Your task to perform on an android device: Add "usb-a to usb-b" to the cart on costco Image 0: 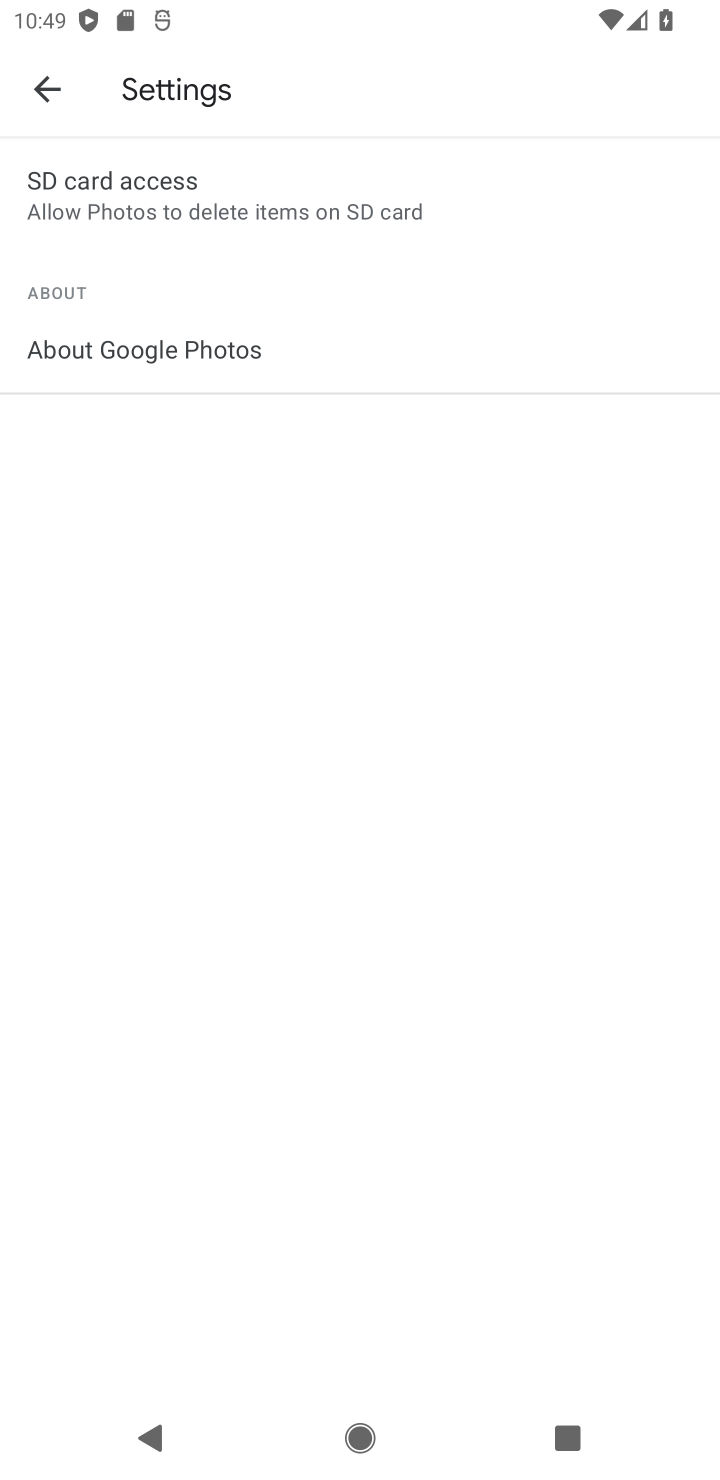
Step 0: press home button
Your task to perform on an android device: Add "usb-a to usb-b" to the cart on costco Image 1: 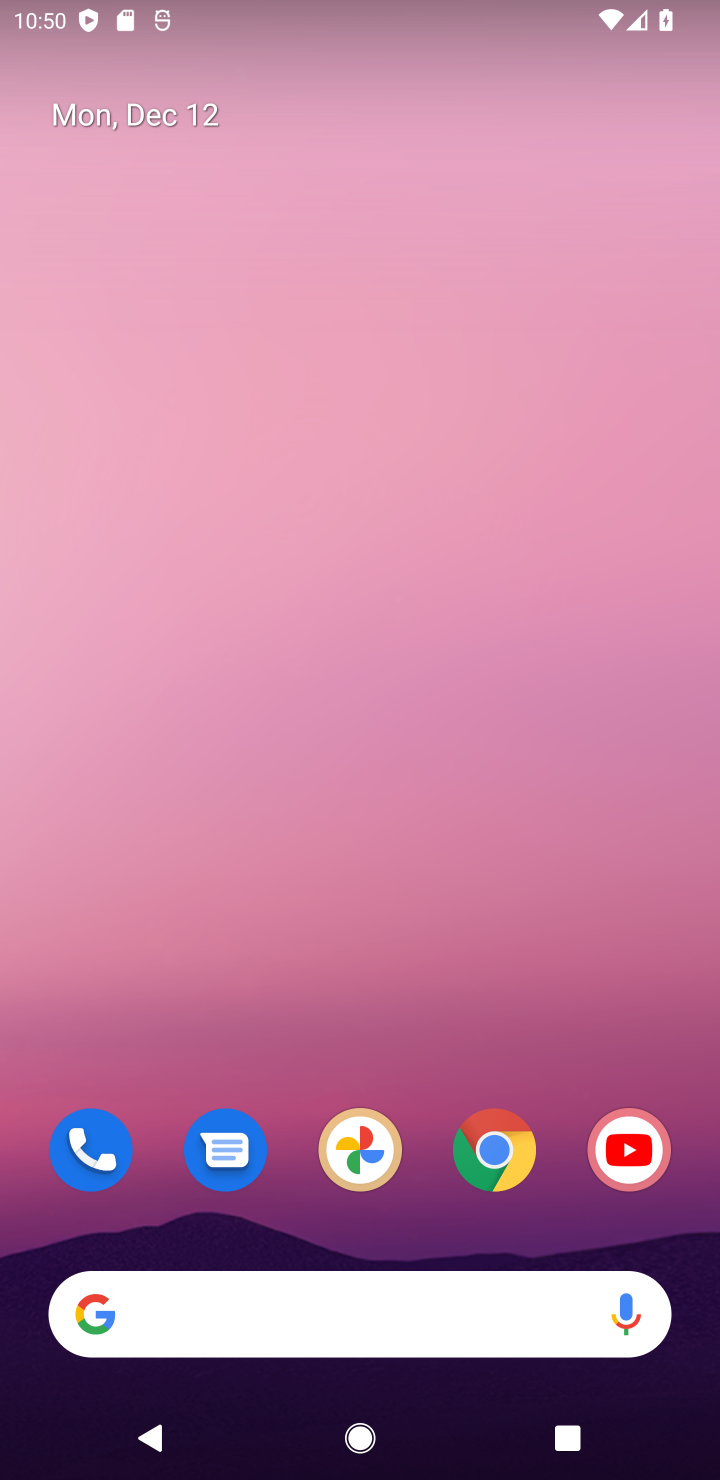
Step 1: click (492, 1160)
Your task to perform on an android device: Add "usb-a to usb-b" to the cart on costco Image 2: 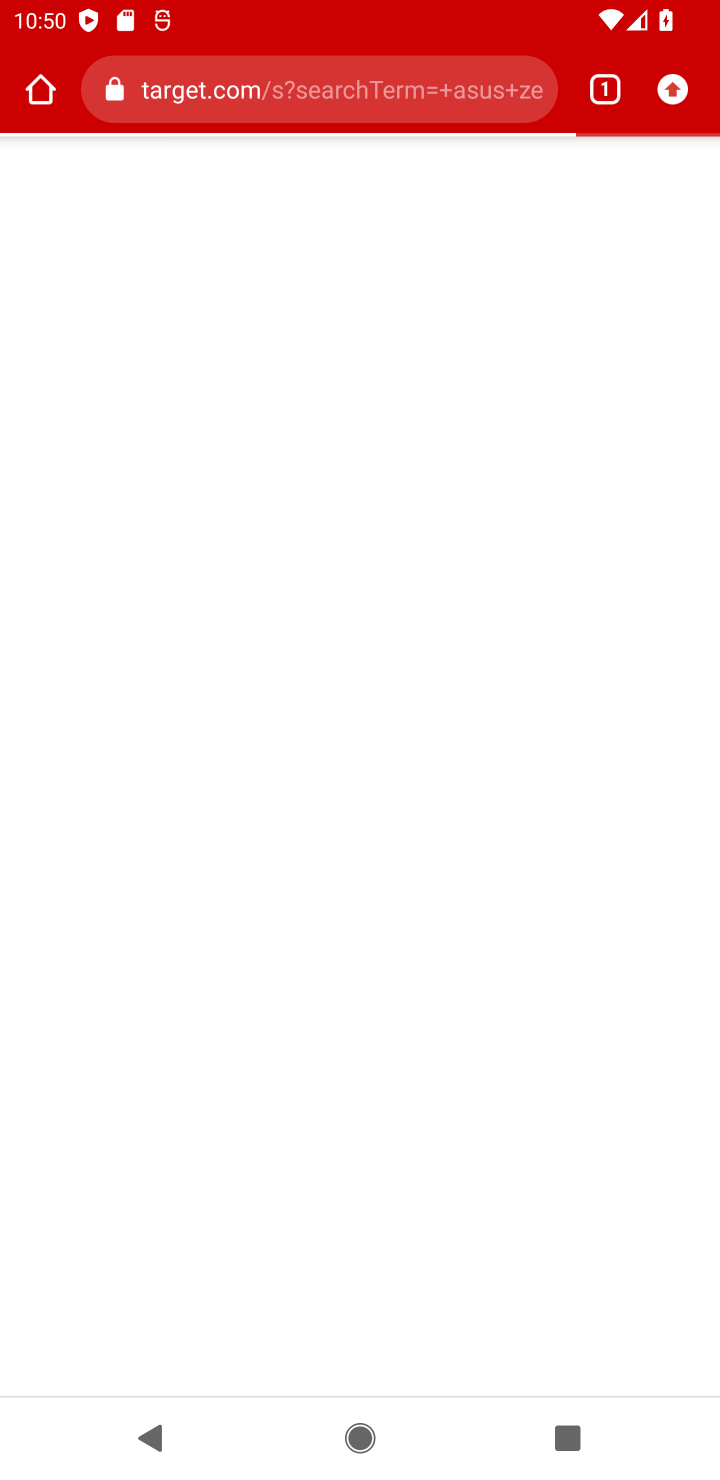
Step 2: click (291, 99)
Your task to perform on an android device: Add "usb-a to usb-b" to the cart on costco Image 3: 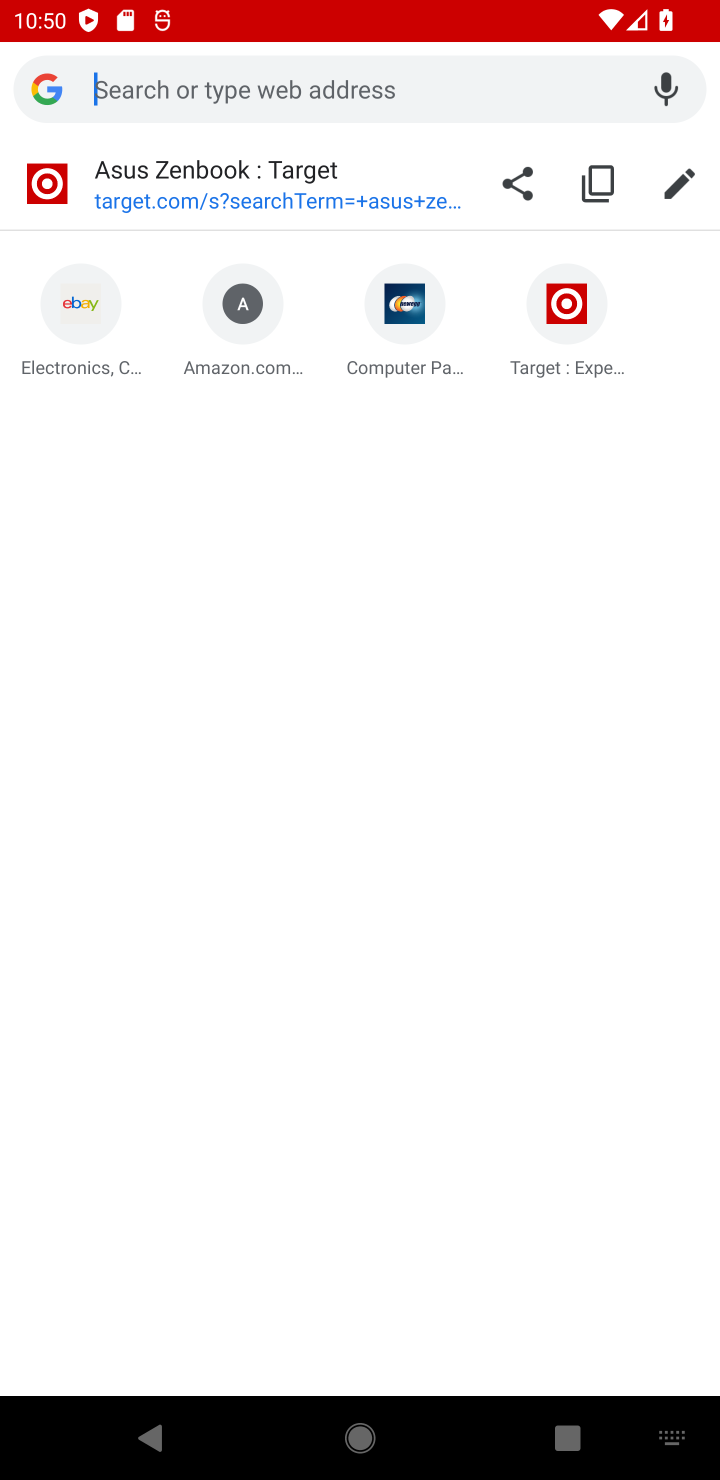
Step 3: type "costco.com"
Your task to perform on an android device: Add "usb-a to usb-b" to the cart on costco Image 4: 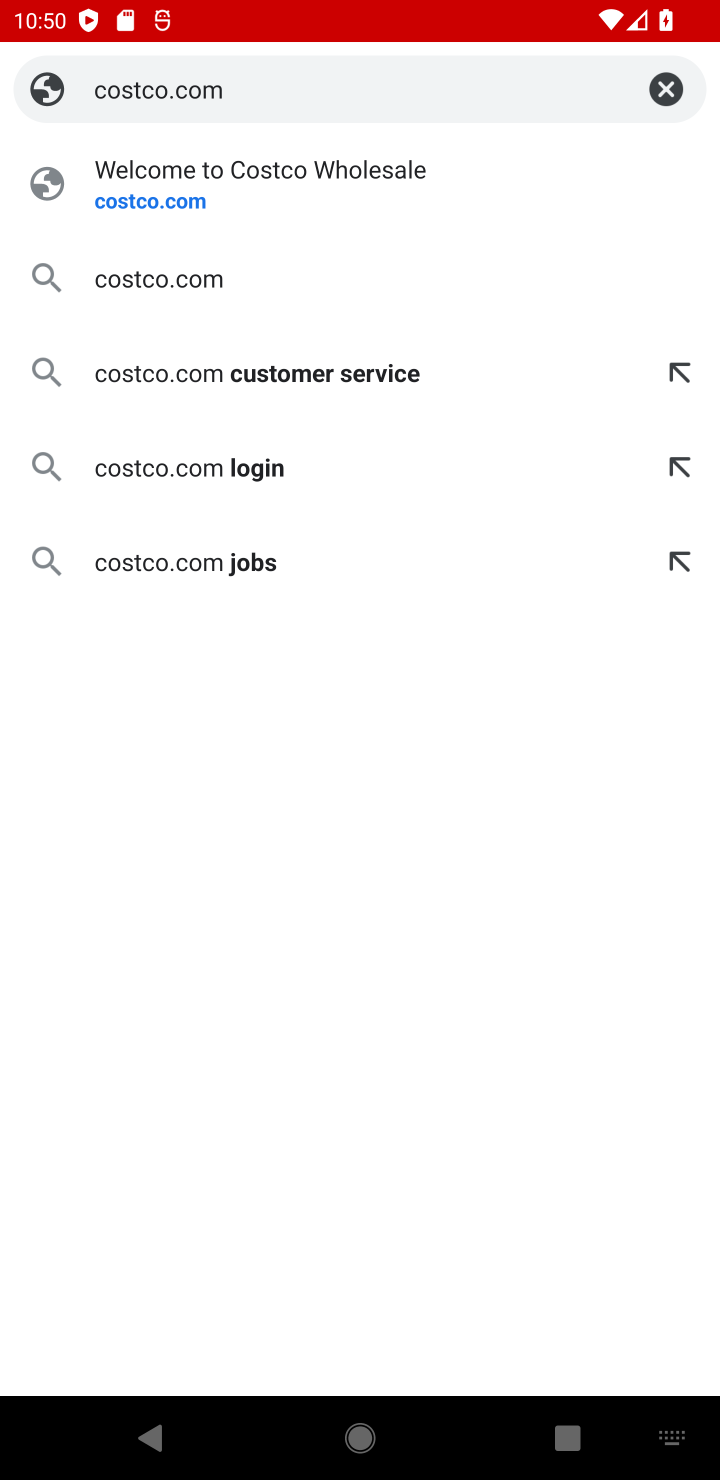
Step 4: click (134, 207)
Your task to perform on an android device: Add "usb-a to usb-b" to the cart on costco Image 5: 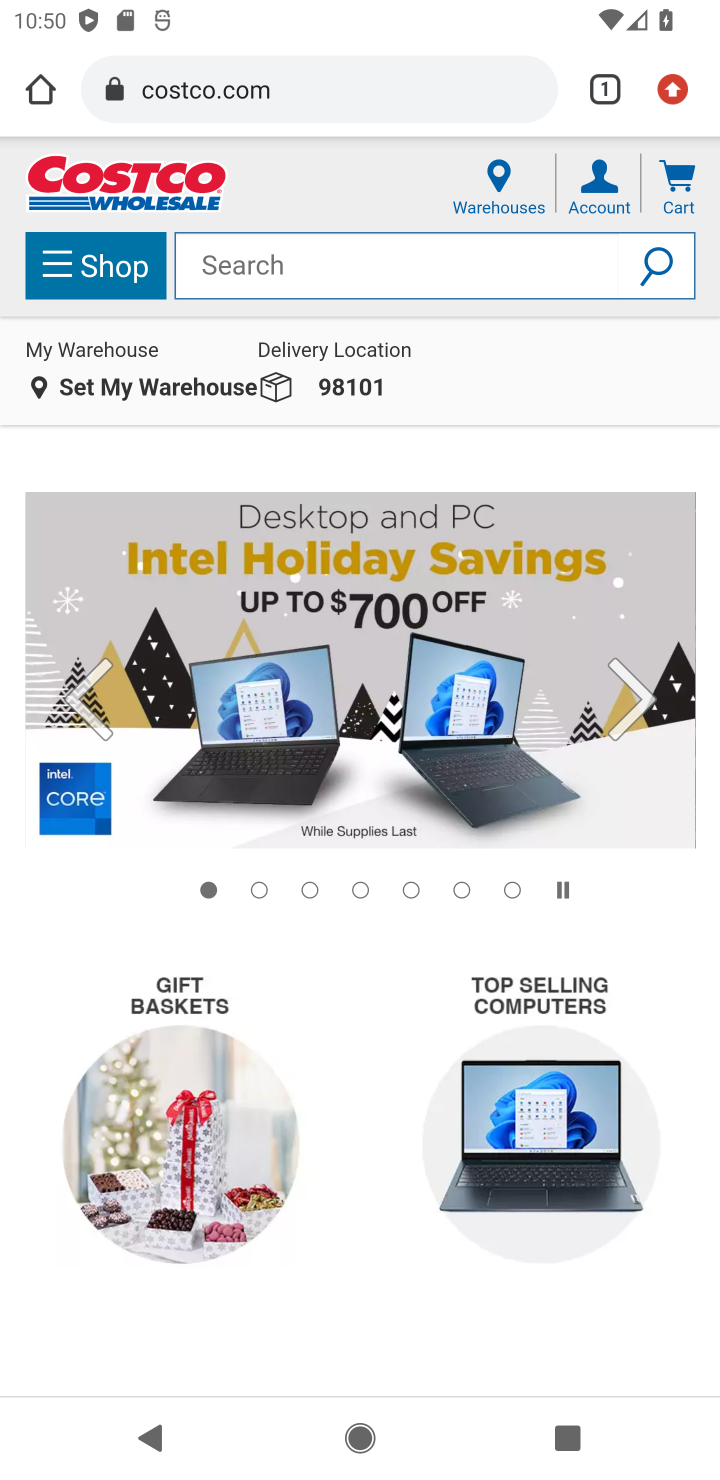
Step 5: click (295, 264)
Your task to perform on an android device: Add "usb-a to usb-b" to the cart on costco Image 6: 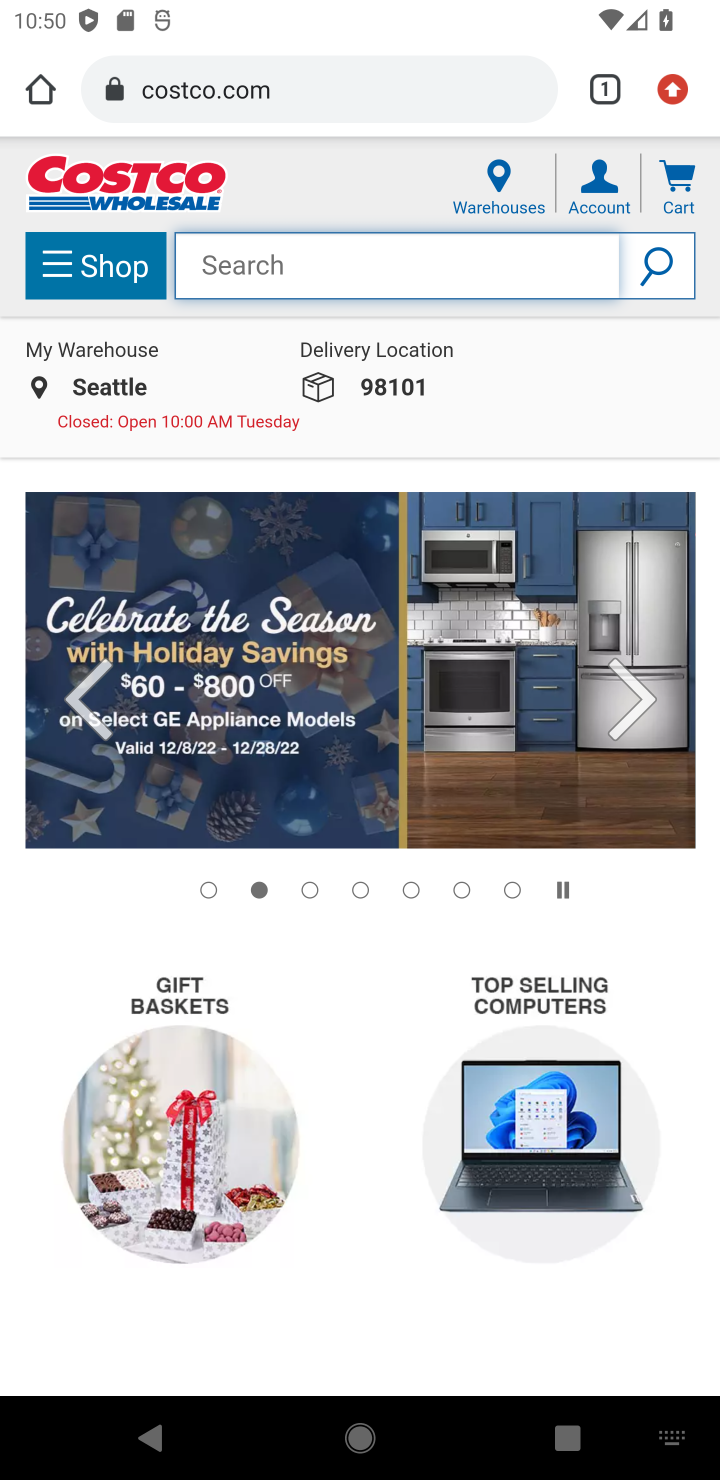
Step 6: type "usb-a to usb-b"
Your task to perform on an android device: Add "usb-a to usb-b" to the cart on costco Image 7: 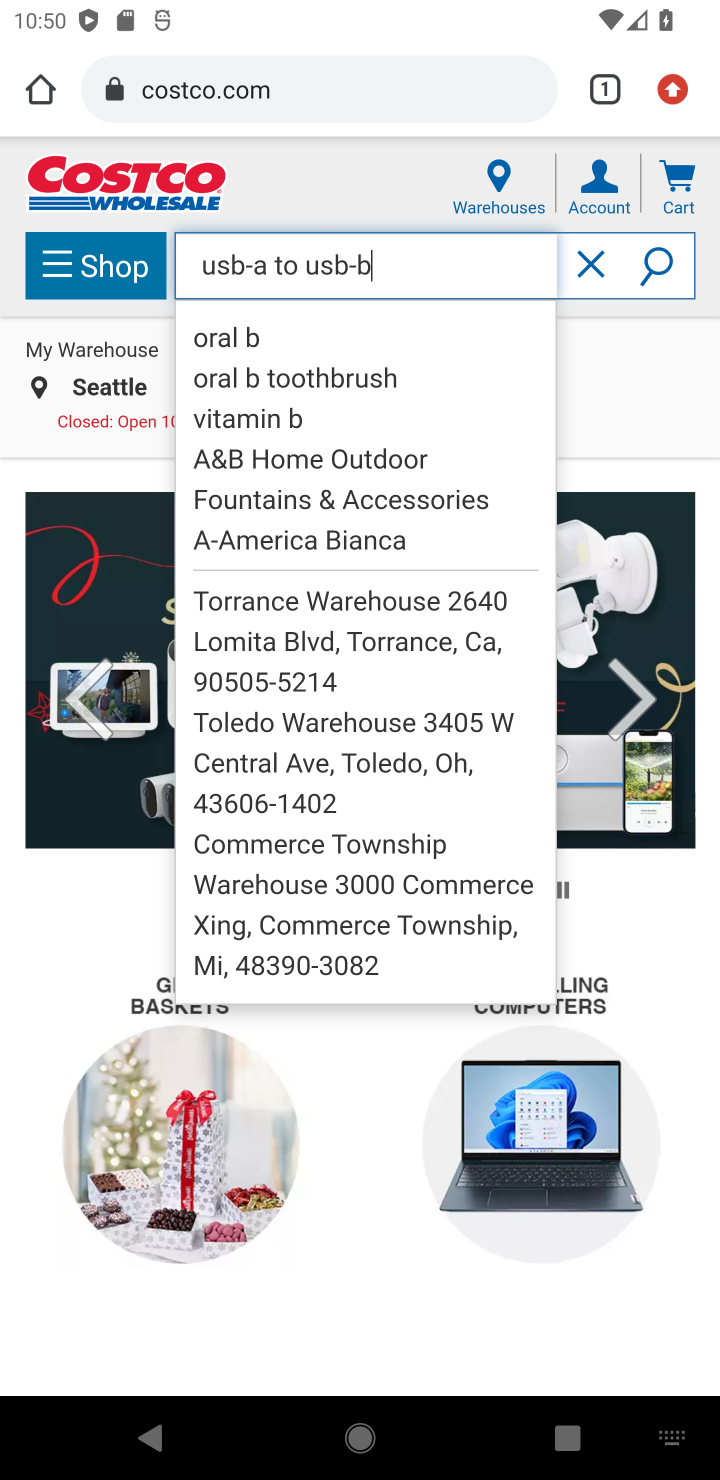
Step 7: click (663, 267)
Your task to perform on an android device: Add "usb-a to usb-b" to the cart on costco Image 8: 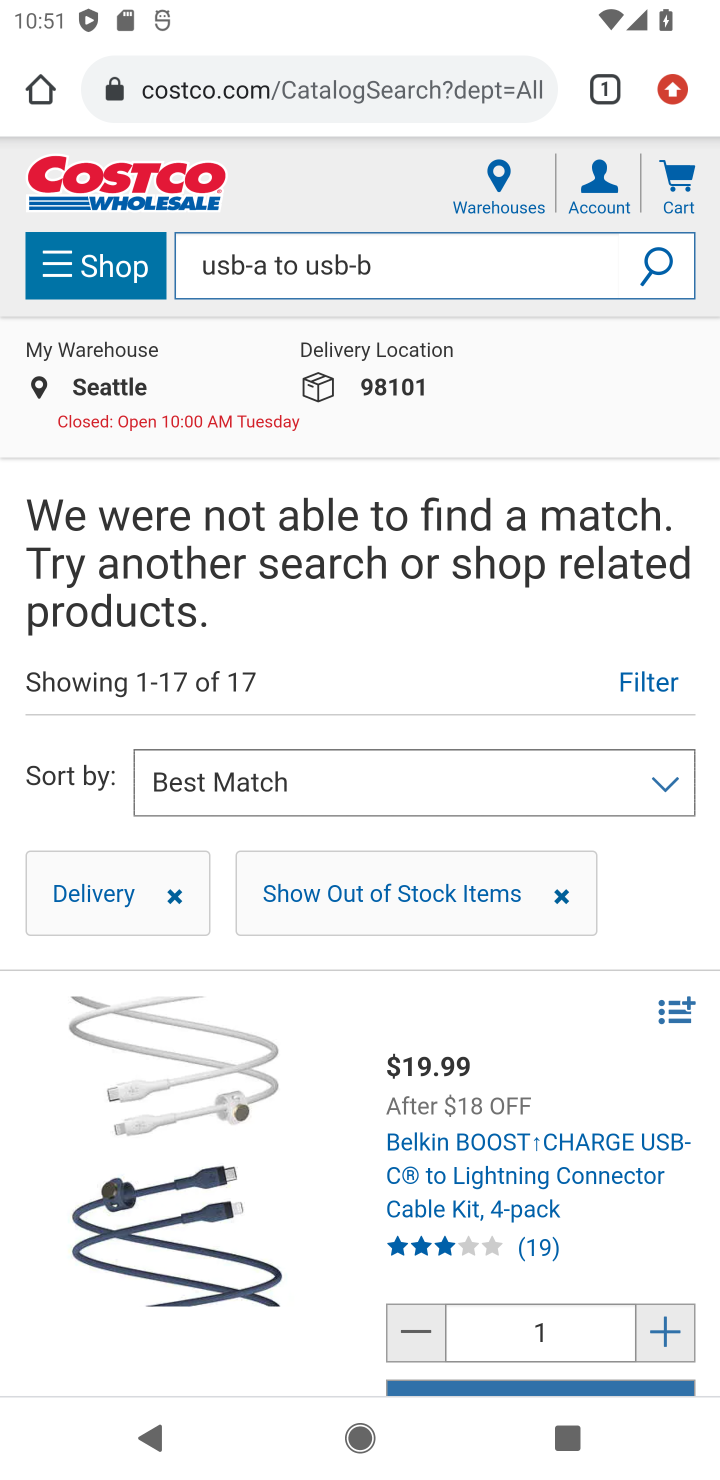
Step 8: task complete